Your task to perform on an android device: Go to Google Image 0: 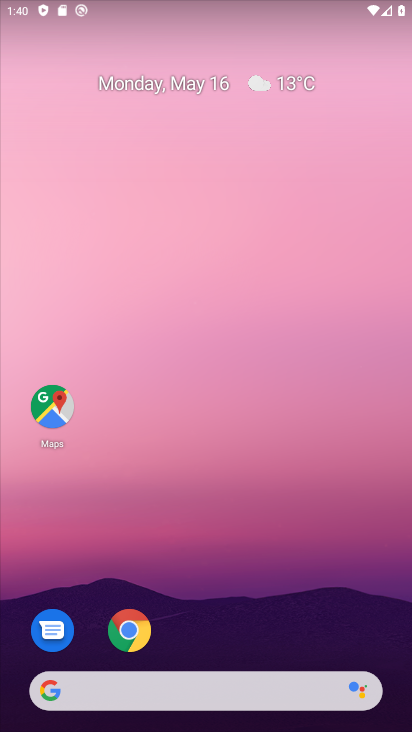
Step 0: drag from (247, 603) to (230, 62)
Your task to perform on an android device: Go to Google Image 1: 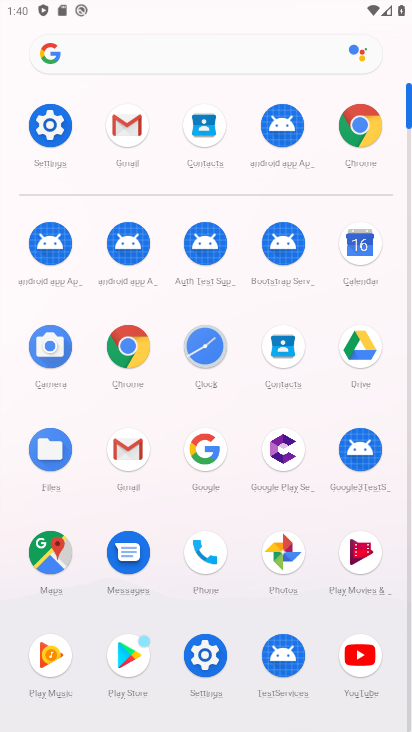
Step 1: click (208, 442)
Your task to perform on an android device: Go to Google Image 2: 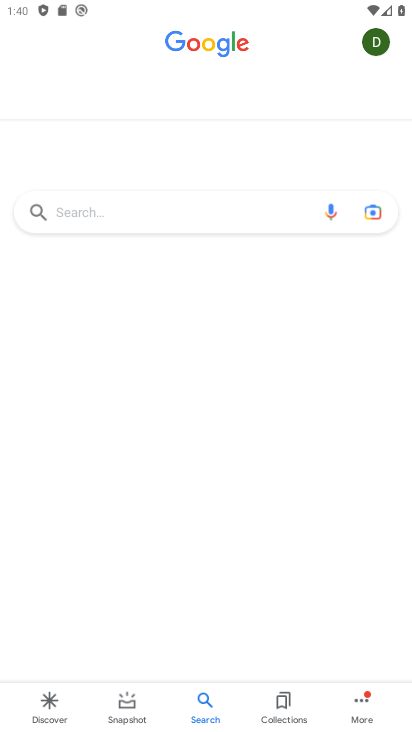
Step 2: task complete